Your task to perform on an android device: remove spam from my inbox in the gmail app Image 0: 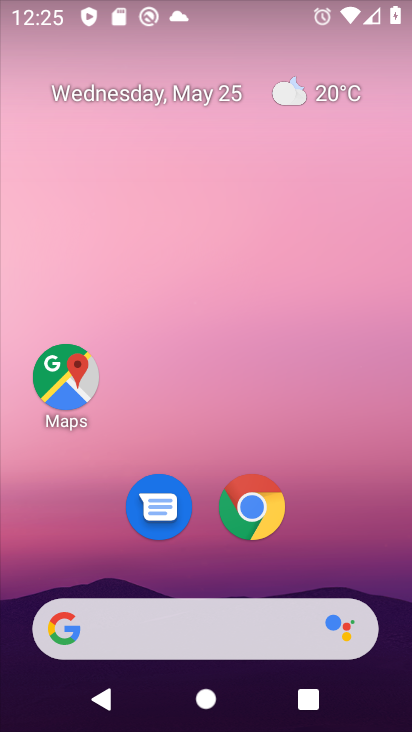
Step 0: click (322, 99)
Your task to perform on an android device: remove spam from my inbox in the gmail app Image 1: 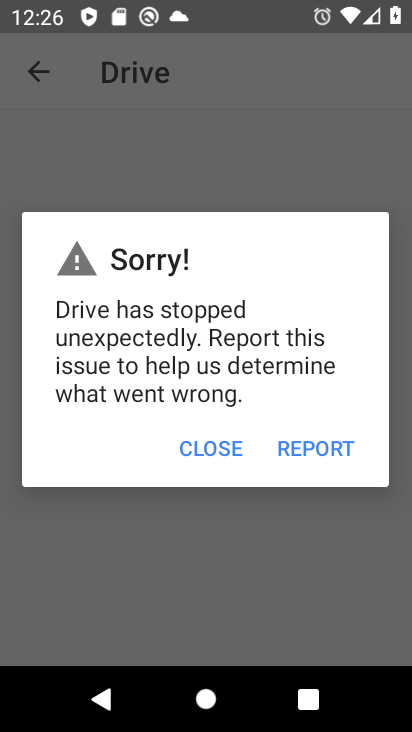
Step 1: press home button
Your task to perform on an android device: remove spam from my inbox in the gmail app Image 2: 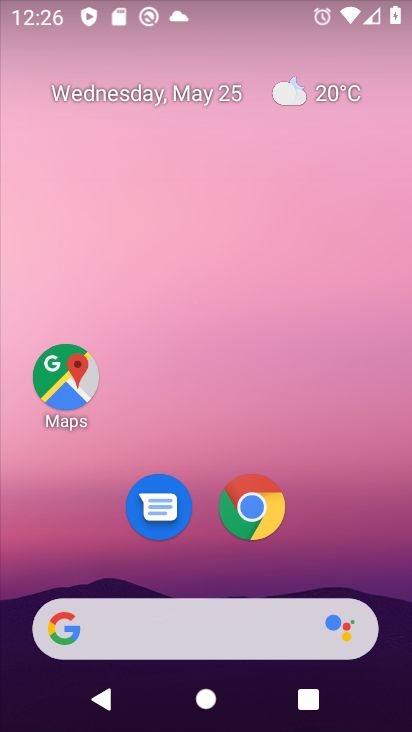
Step 2: drag from (302, 581) to (332, 204)
Your task to perform on an android device: remove spam from my inbox in the gmail app Image 3: 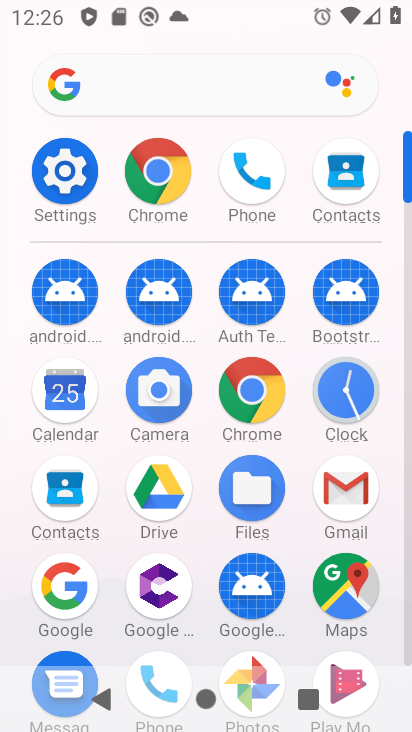
Step 3: drag from (323, 594) to (305, 282)
Your task to perform on an android device: remove spam from my inbox in the gmail app Image 4: 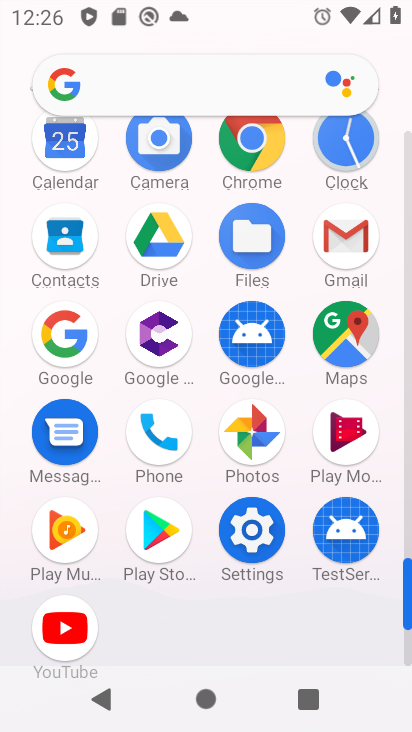
Step 4: click (342, 247)
Your task to perform on an android device: remove spam from my inbox in the gmail app Image 5: 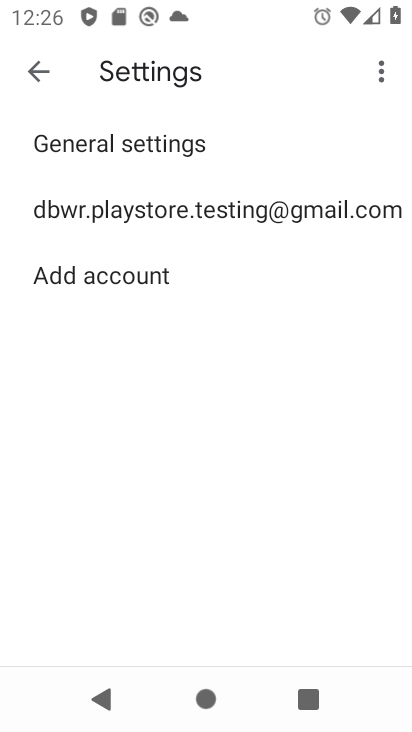
Step 5: click (318, 230)
Your task to perform on an android device: remove spam from my inbox in the gmail app Image 6: 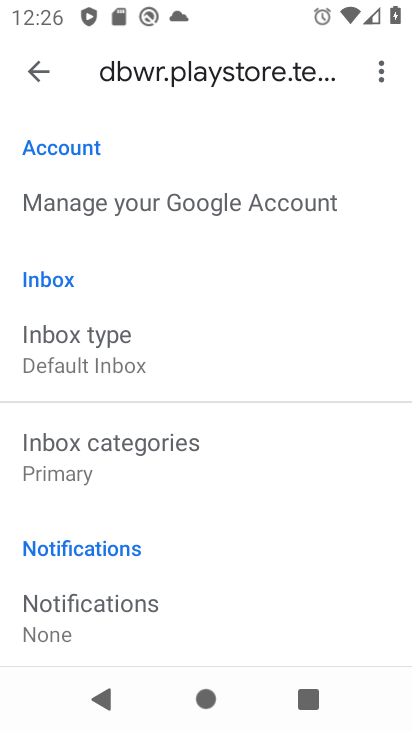
Step 6: drag from (228, 637) to (221, 172)
Your task to perform on an android device: remove spam from my inbox in the gmail app Image 7: 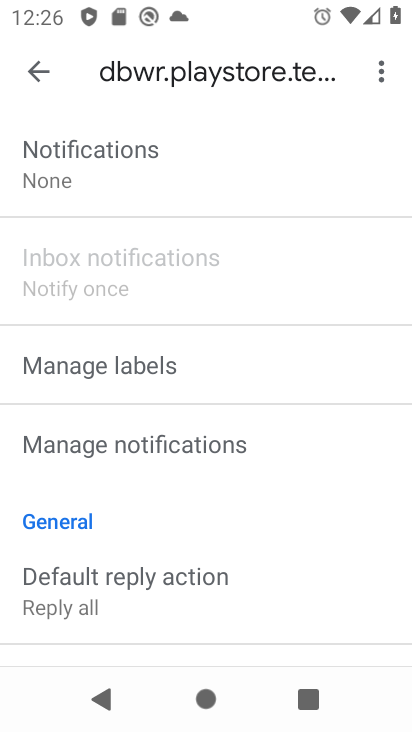
Step 7: click (33, 75)
Your task to perform on an android device: remove spam from my inbox in the gmail app Image 8: 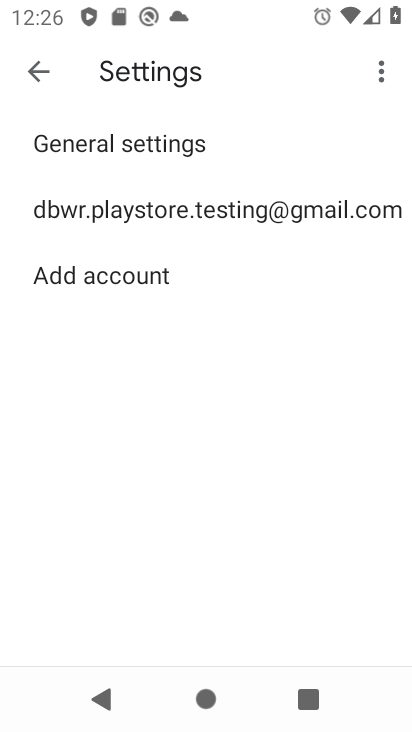
Step 8: click (30, 74)
Your task to perform on an android device: remove spam from my inbox in the gmail app Image 9: 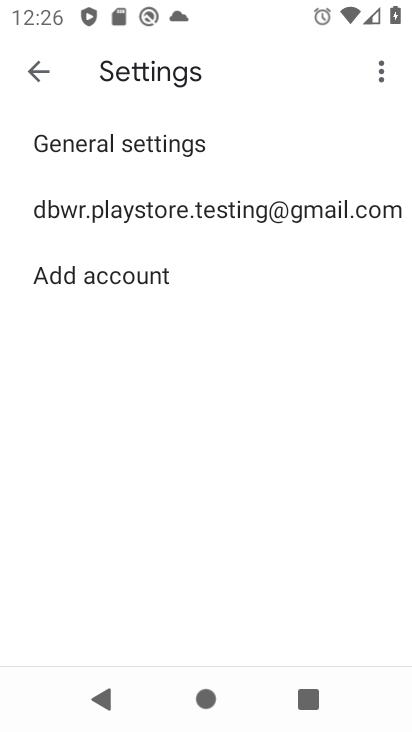
Step 9: click (36, 80)
Your task to perform on an android device: remove spam from my inbox in the gmail app Image 10: 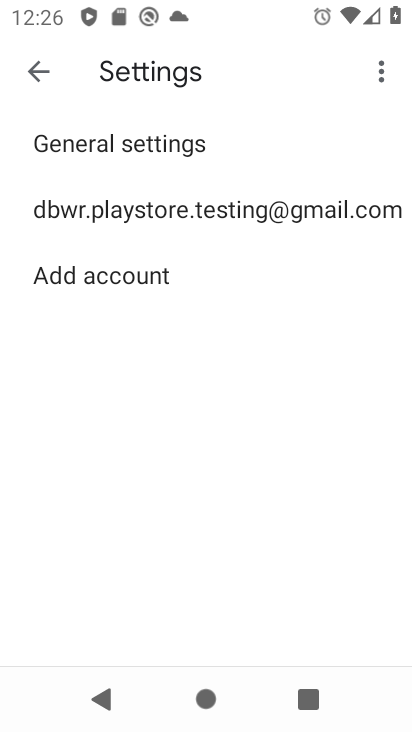
Step 10: click (33, 61)
Your task to perform on an android device: remove spam from my inbox in the gmail app Image 11: 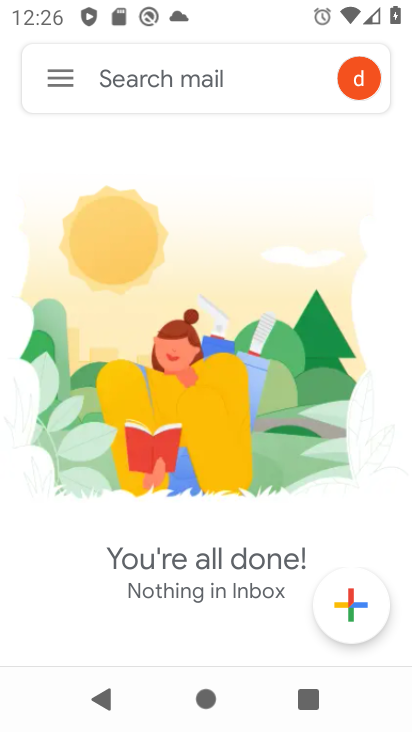
Step 11: click (48, 68)
Your task to perform on an android device: remove spam from my inbox in the gmail app Image 12: 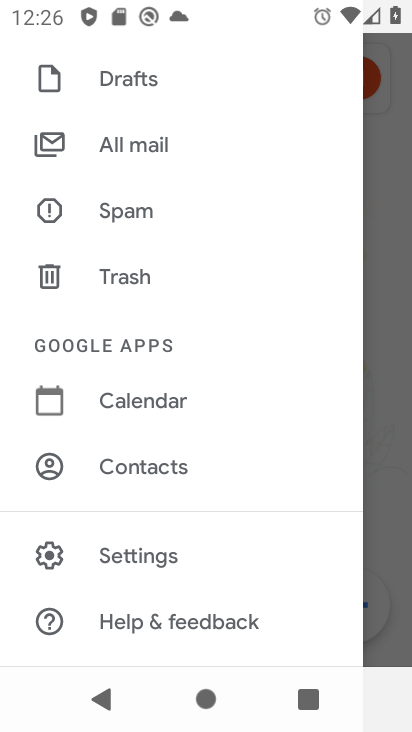
Step 12: click (132, 210)
Your task to perform on an android device: remove spam from my inbox in the gmail app Image 13: 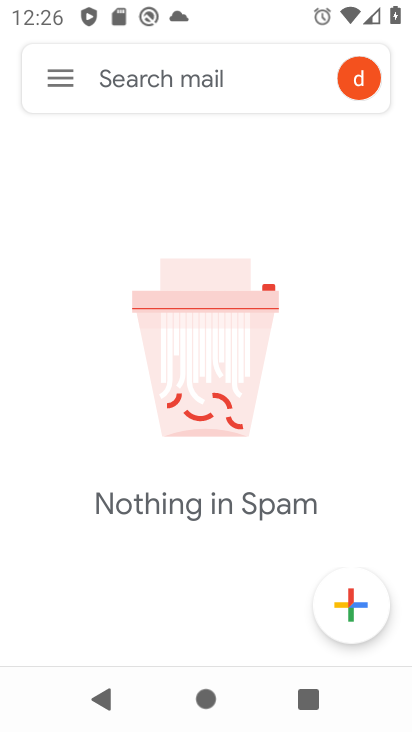
Step 13: task complete